Your task to perform on an android device: Go to Yahoo.com Image 0: 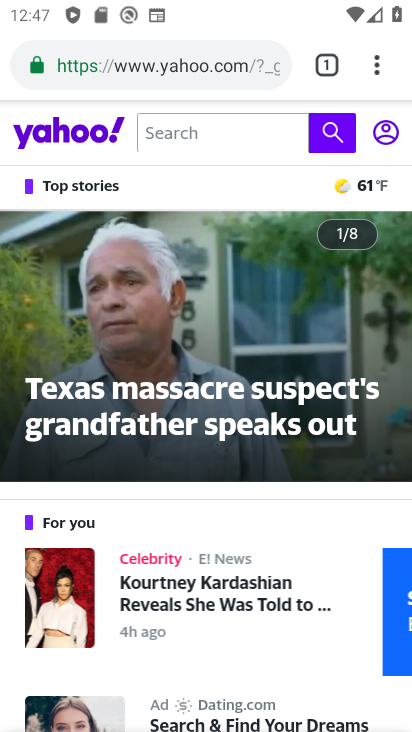
Step 0: press home button
Your task to perform on an android device: Go to Yahoo.com Image 1: 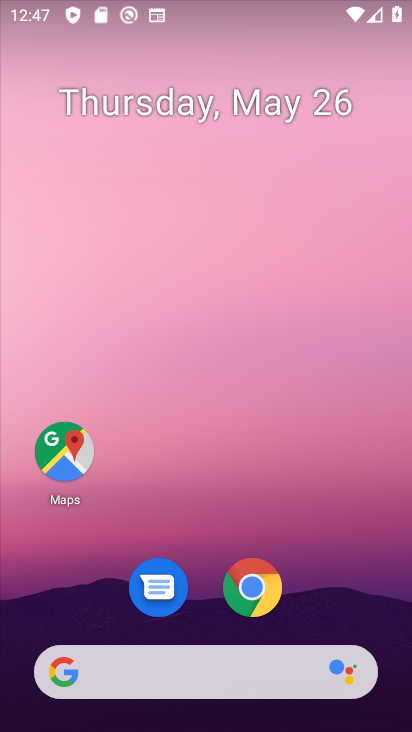
Step 1: drag from (368, 620) to (370, 189)
Your task to perform on an android device: Go to Yahoo.com Image 2: 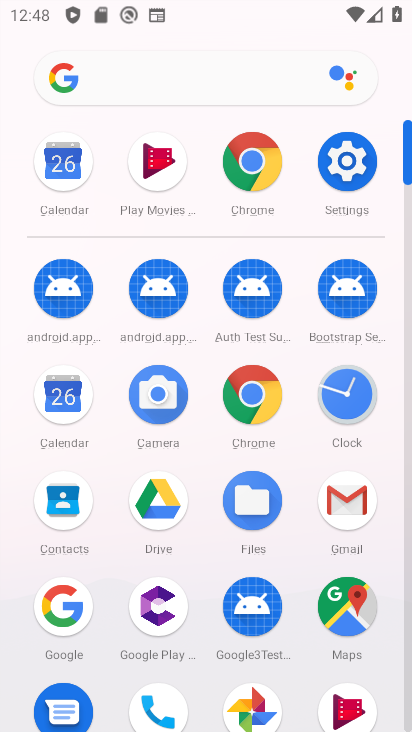
Step 2: click (250, 393)
Your task to perform on an android device: Go to Yahoo.com Image 3: 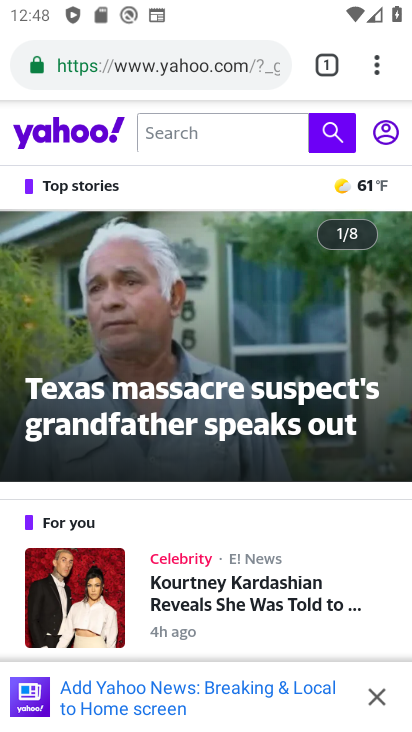
Step 3: task complete